Your task to perform on an android device: Show me productivity apps on the Play Store Image 0: 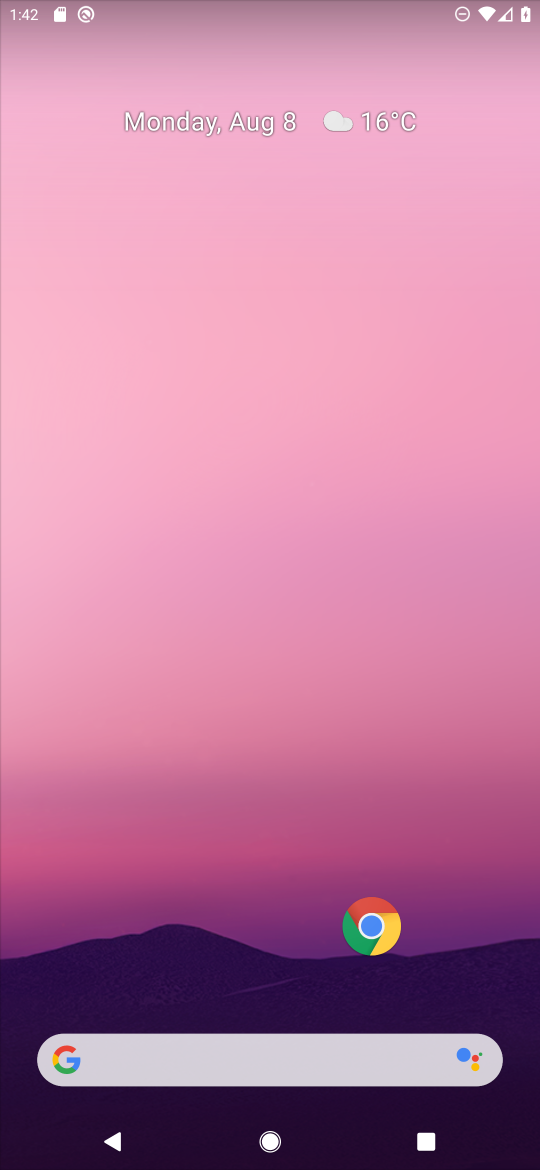
Step 0: drag from (220, 958) to (198, 250)
Your task to perform on an android device: Show me productivity apps on the Play Store Image 1: 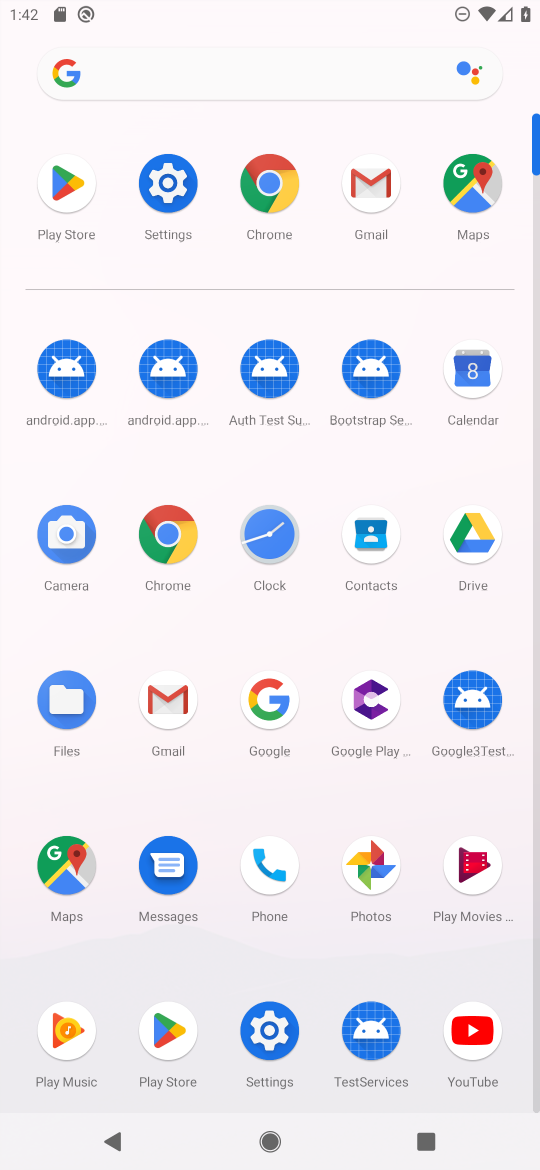
Step 1: drag from (335, 927) to (369, 235)
Your task to perform on an android device: Show me productivity apps on the Play Store Image 2: 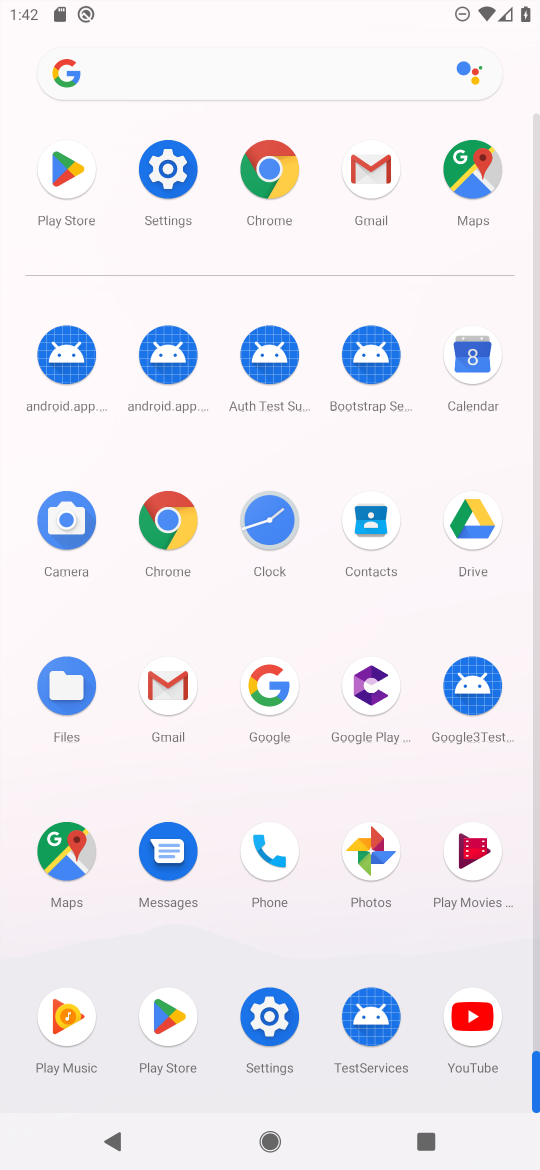
Step 2: click (179, 1013)
Your task to perform on an android device: Show me productivity apps on the Play Store Image 3: 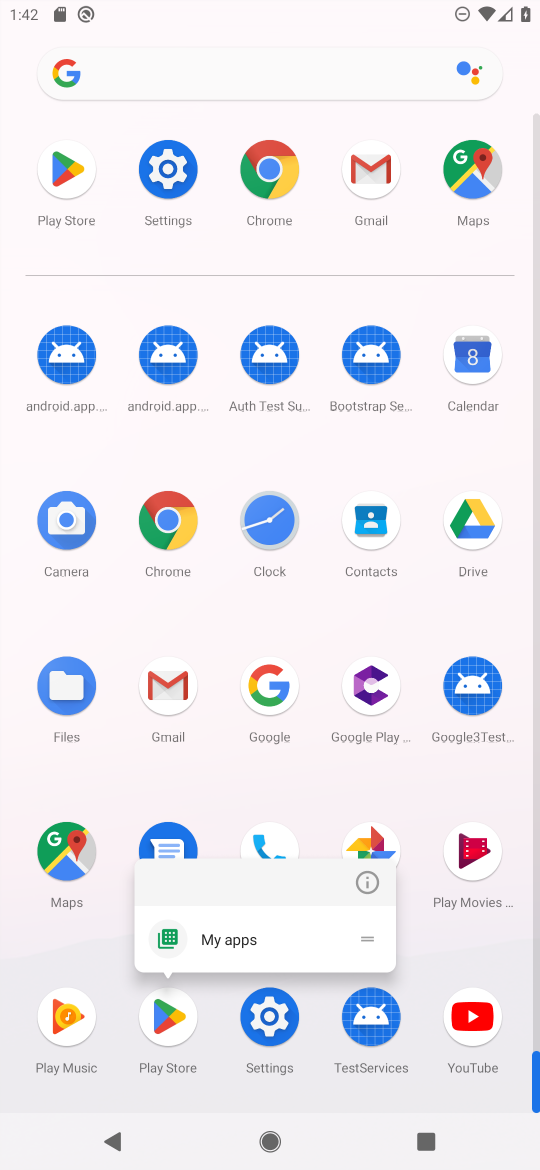
Step 3: click (179, 1013)
Your task to perform on an android device: Show me productivity apps on the Play Store Image 4: 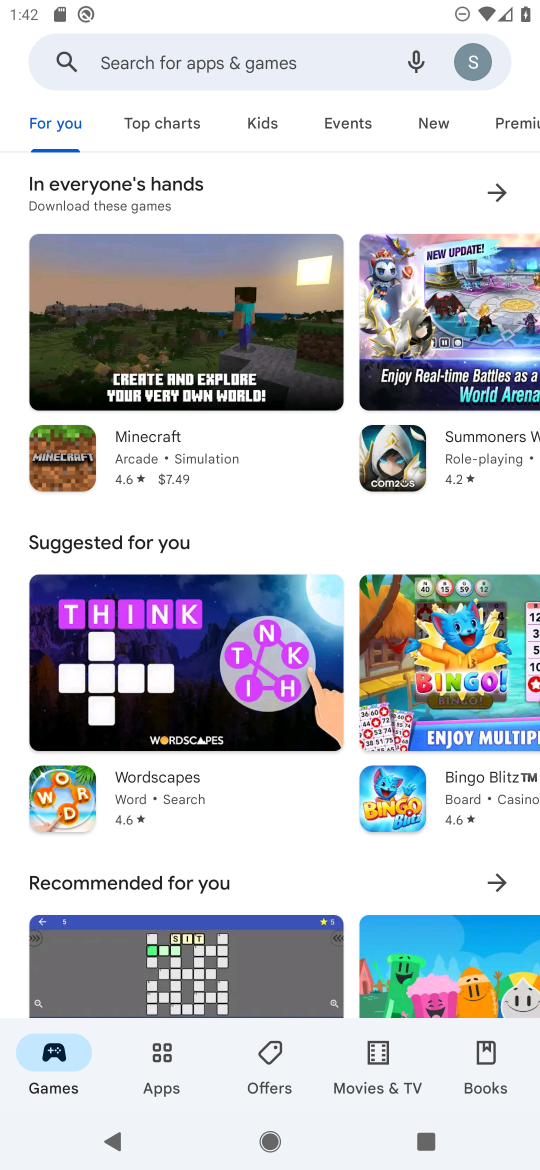
Step 4: click (171, 1060)
Your task to perform on an android device: Show me productivity apps on the Play Store Image 5: 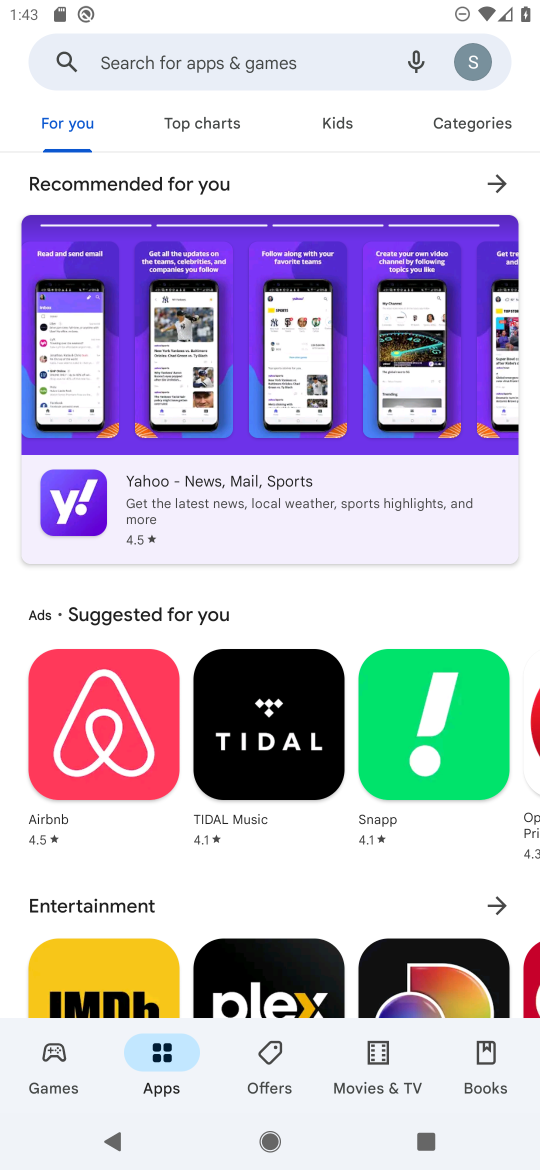
Step 5: task complete